Your task to perform on an android device: Play the last video I watched on Youtube Image 0: 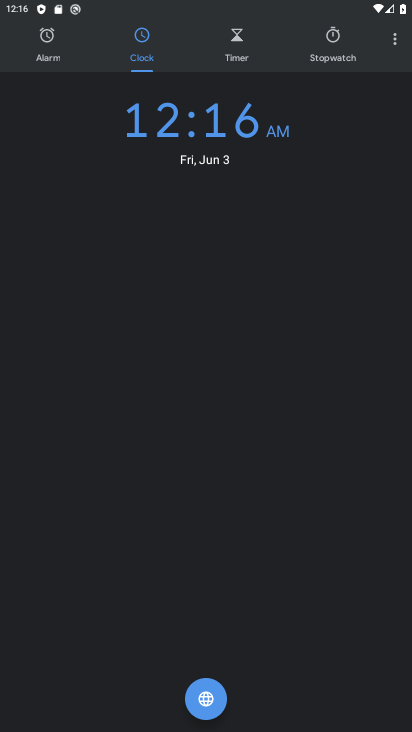
Step 0: press home button
Your task to perform on an android device: Play the last video I watched on Youtube Image 1: 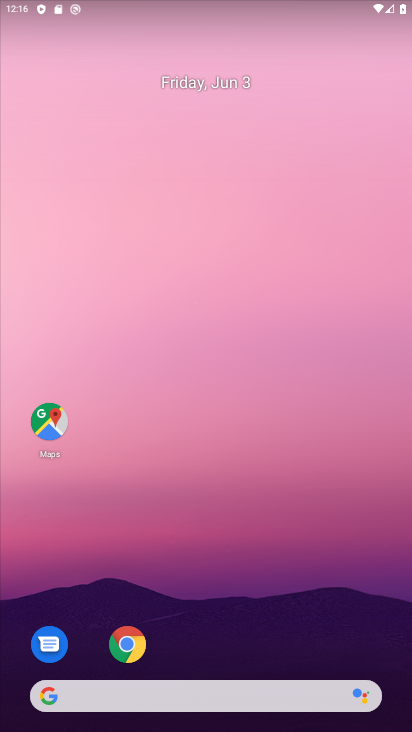
Step 1: drag from (210, 726) to (202, 5)
Your task to perform on an android device: Play the last video I watched on Youtube Image 2: 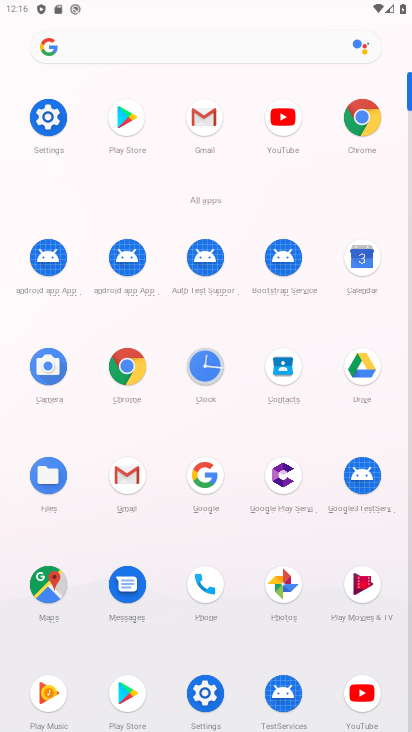
Step 2: click (362, 682)
Your task to perform on an android device: Play the last video I watched on Youtube Image 3: 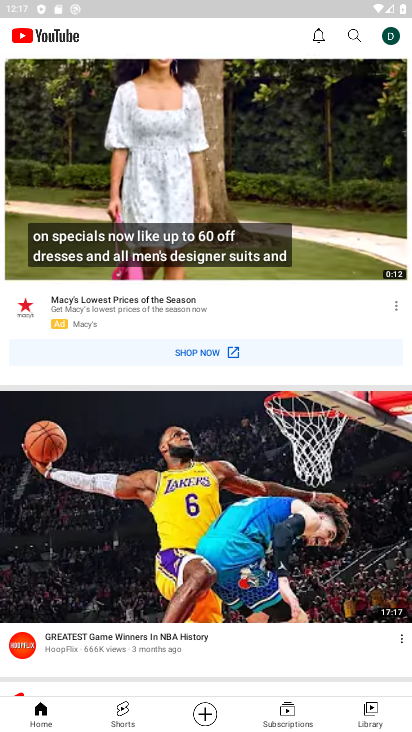
Step 3: click (378, 714)
Your task to perform on an android device: Play the last video I watched on Youtube Image 4: 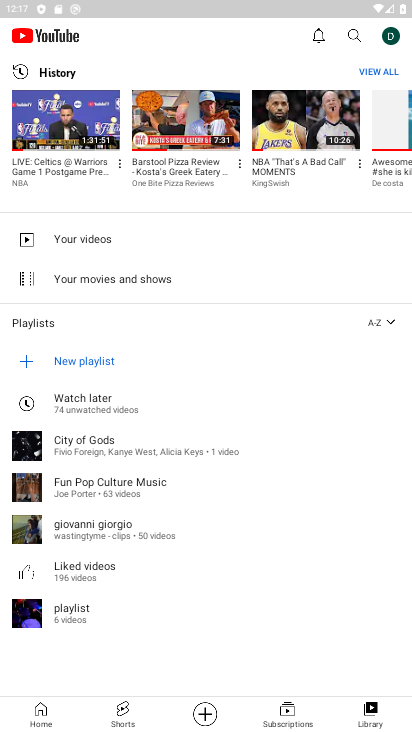
Step 4: click (48, 122)
Your task to perform on an android device: Play the last video I watched on Youtube Image 5: 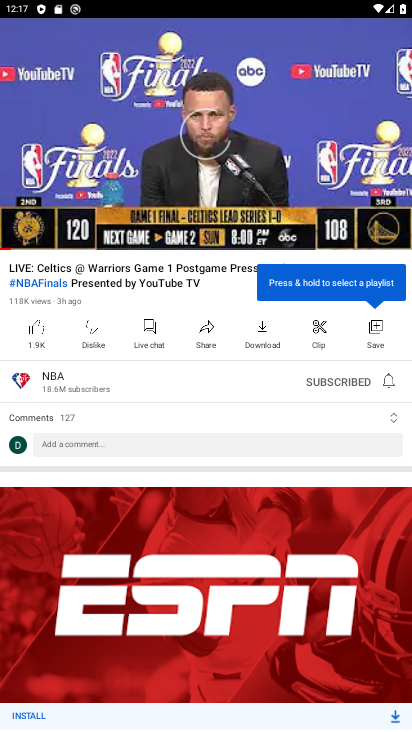
Step 5: click (388, 204)
Your task to perform on an android device: Play the last video I watched on Youtube Image 6: 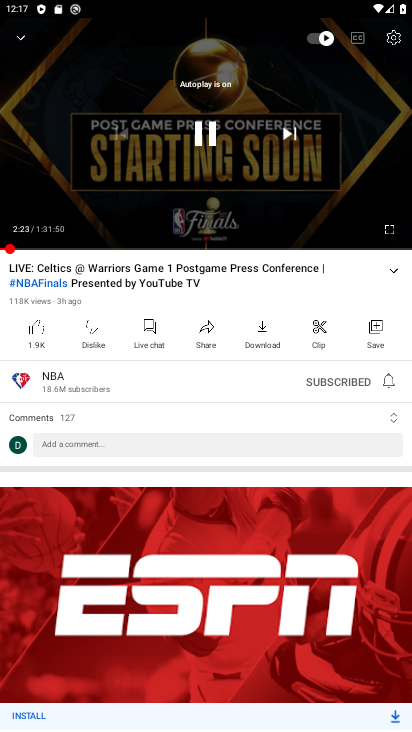
Step 6: task complete